Your task to perform on an android device: Go to internet settings Image 0: 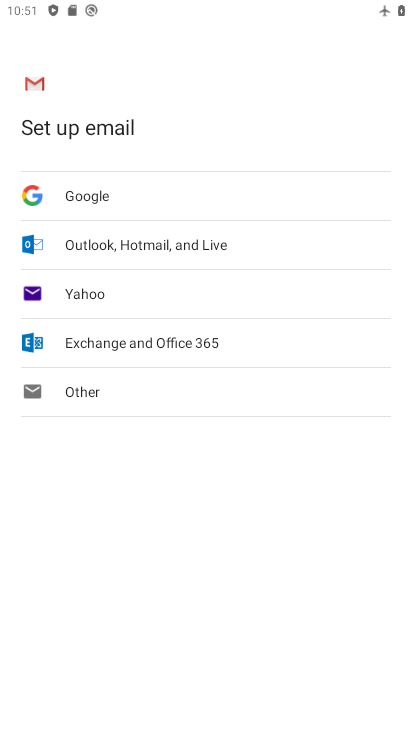
Step 0: press home button
Your task to perform on an android device: Go to internet settings Image 1: 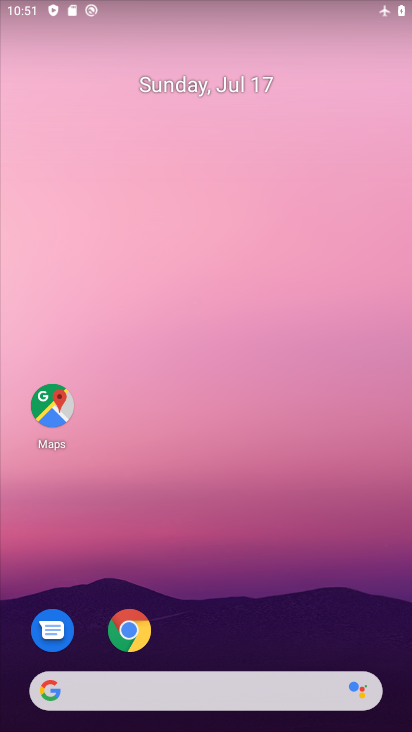
Step 1: drag from (194, 652) to (315, 9)
Your task to perform on an android device: Go to internet settings Image 2: 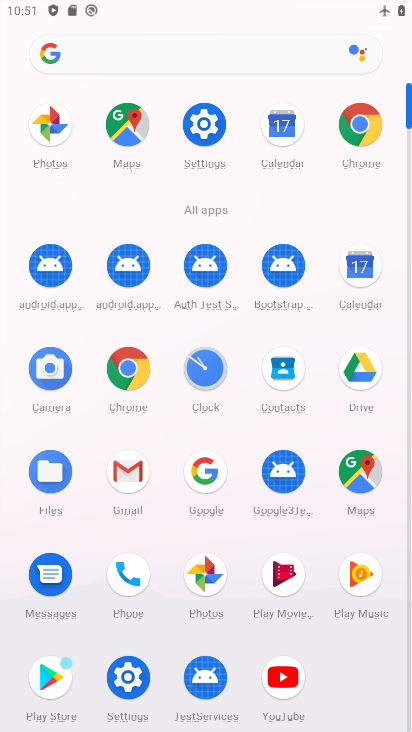
Step 2: click (211, 136)
Your task to perform on an android device: Go to internet settings Image 3: 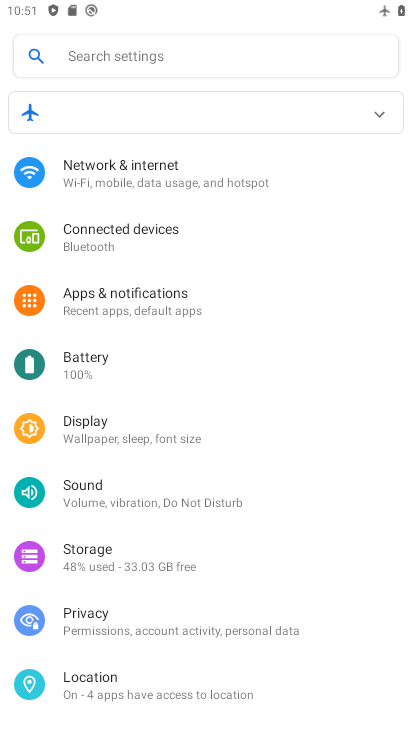
Step 3: click (126, 171)
Your task to perform on an android device: Go to internet settings Image 4: 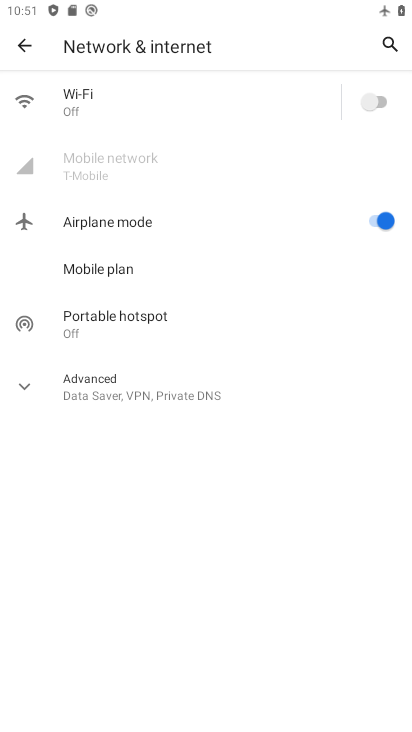
Step 4: click (90, 388)
Your task to perform on an android device: Go to internet settings Image 5: 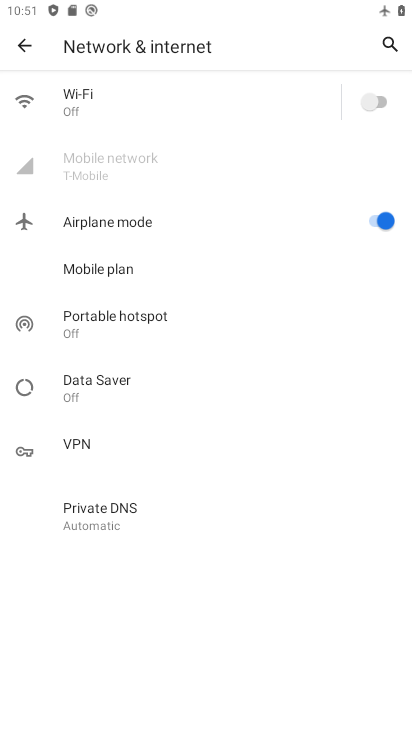
Step 5: task complete